Your task to perform on an android device: Is it going to rain today? Image 0: 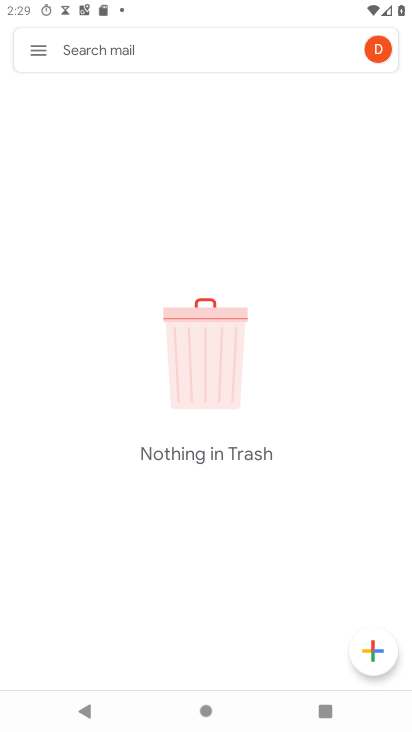
Step 0: press home button
Your task to perform on an android device: Is it going to rain today? Image 1: 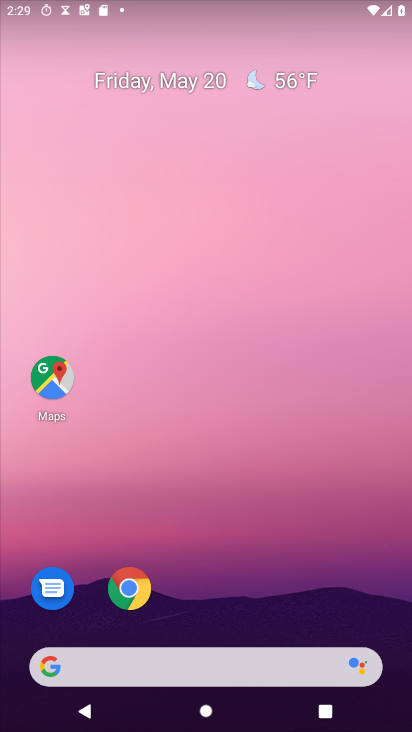
Step 1: click (119, 660)
Your task to perform on an android device: Is it going to rain today? Image 2: 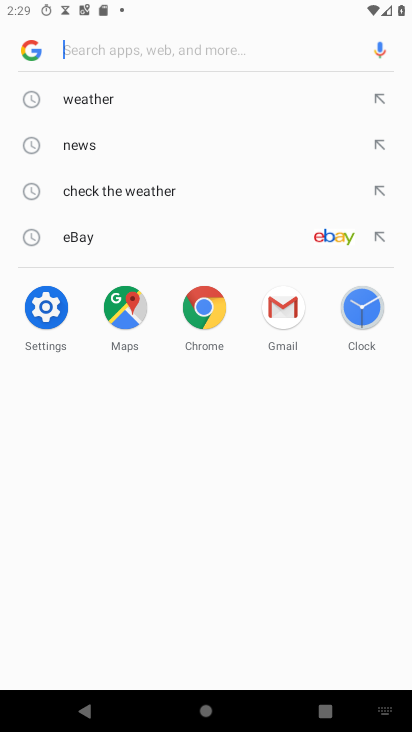
Step 2: click (94, 105)
Your task to perform on an android device: Is it going to rain today? Image 3: 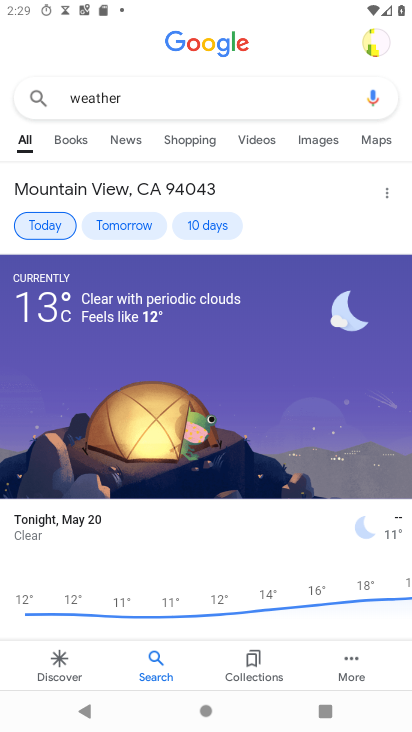
Step 3: task complete